Your task to perform on an android device: Open accessibility settings Image 0: 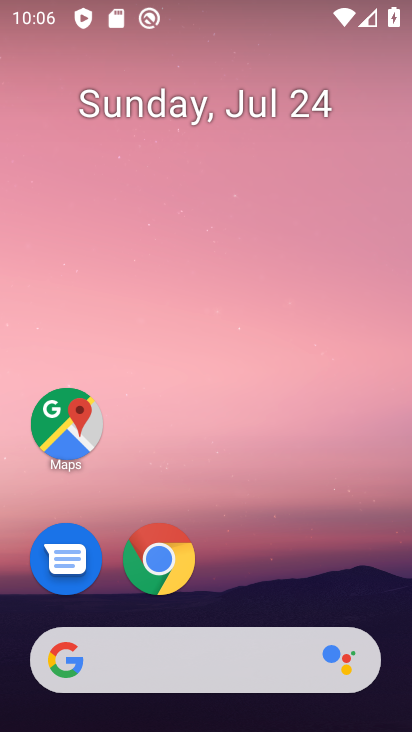
Step 0: drag from (245, 598) to (283, 31)
Your task to perform on an android device: Open accessibility settings Image 1: 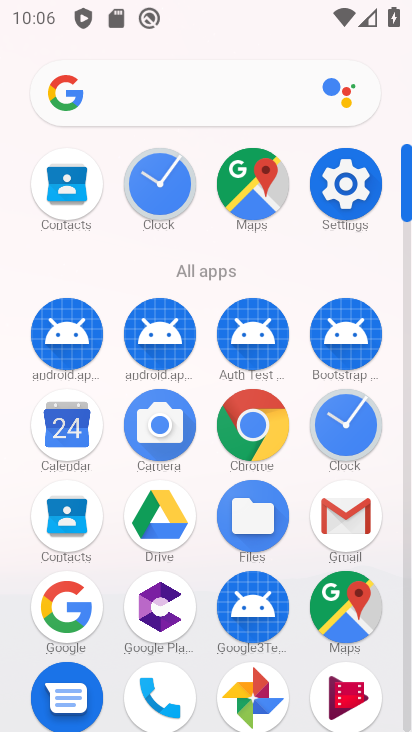
Step 1: click (339, 198)
Your task to perform on an android device: Open accessibility settings Image 2: 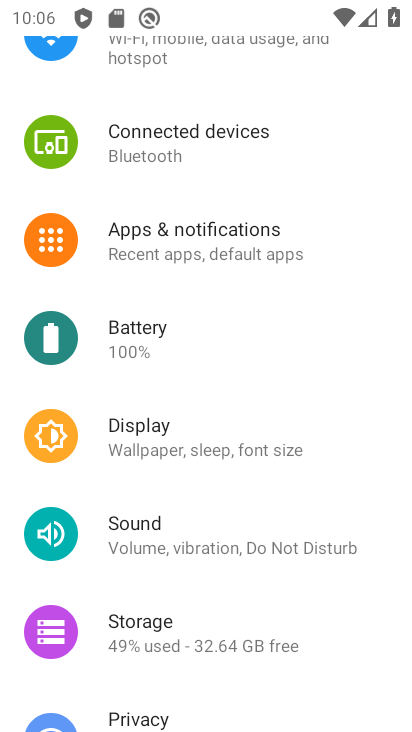
Step 2: click (222, 184)
Your task to perform on an android device: Open accessibility settings Image 3: 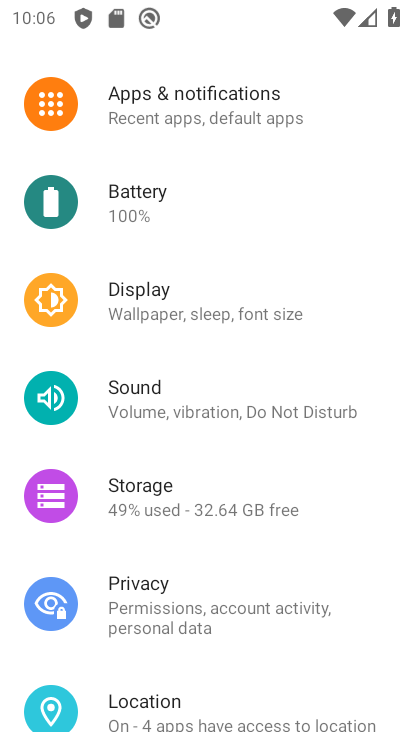
Step 3: drag from (168, 646) to (226, 183)
Your task to perform on an android device: Open accessibility settings Image 4: 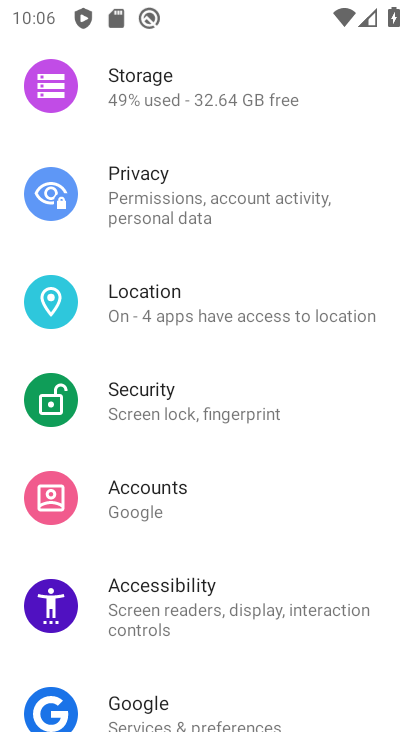
Step 4: click (155, 604)
Your task to perform on an android device: Open accessibility settings Image 5: 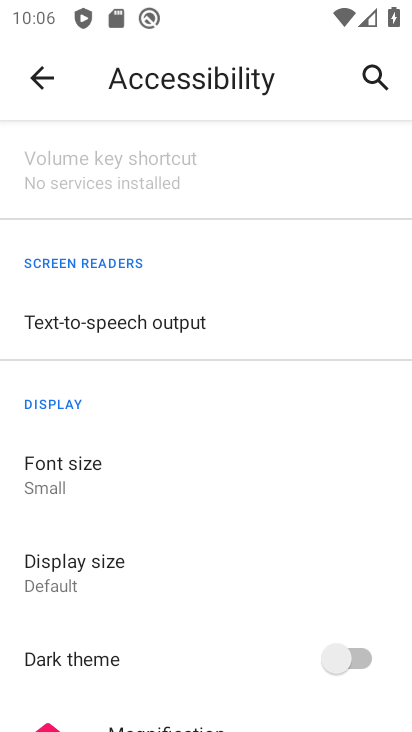
Step 5: task complete